Your task to perform on an android device: see sites visited before in the chrome app Image 0: 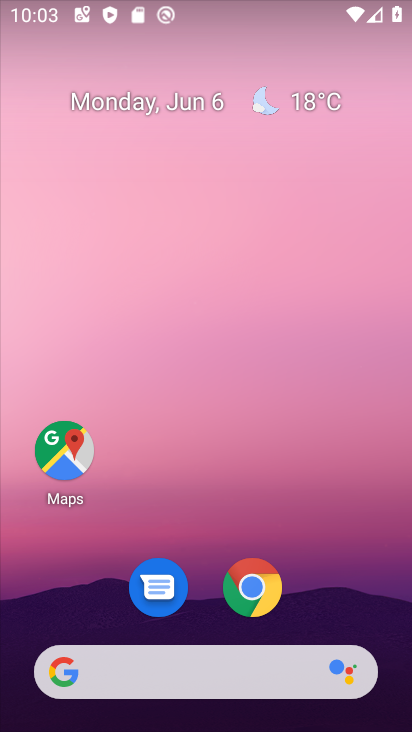
Step 0: click (252, 586)
Your task to perform on an android device: see sites visited before in the chrome app Image 1: 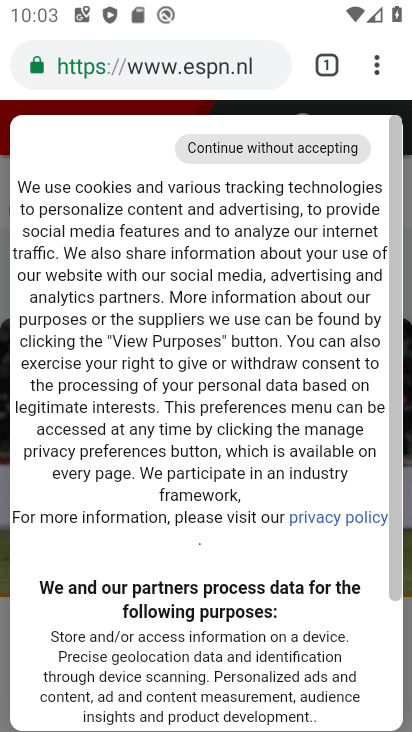
Step 1: click (378, 58)
Your task to perform on an android device: see sites visited before in the chrome app Image 2: 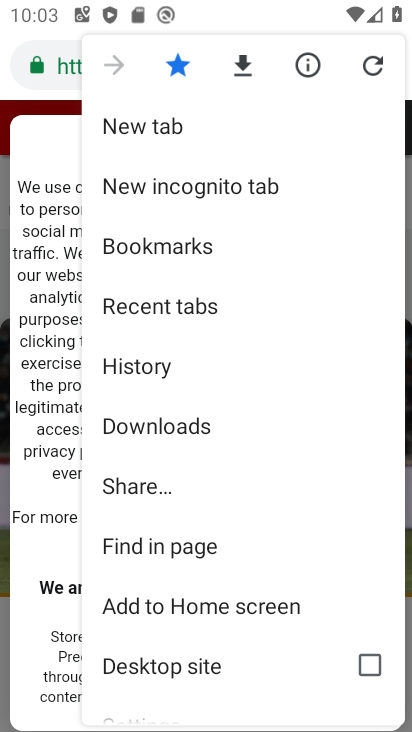
Step 2: drag from (334, 637) to (340, 137)
Your task to perform on an android device: see sites visited before in the chrome app Image 3: 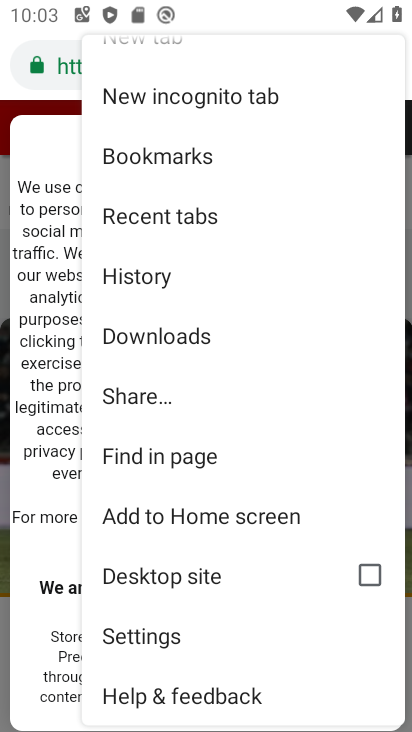
Step 3: drag from (315, 279) to (304, 681)
Your task to perform on an android device: see sites visited before in the chrome app Image 4: 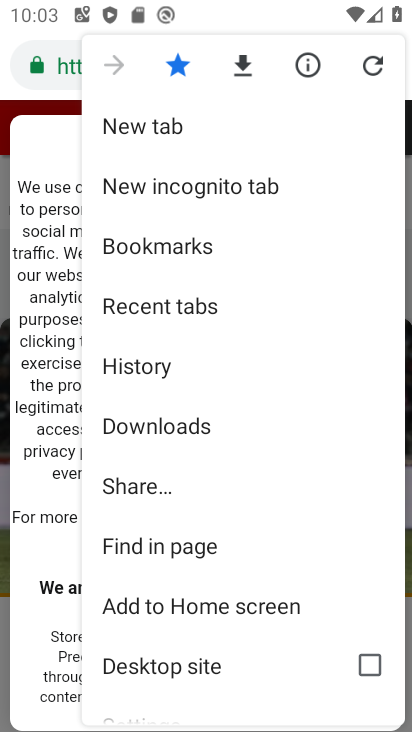
Step 4: drag from (305, 661) to (382, 254)
Your task to perform on an android device: see sites visited before in the chrome app Image 5: 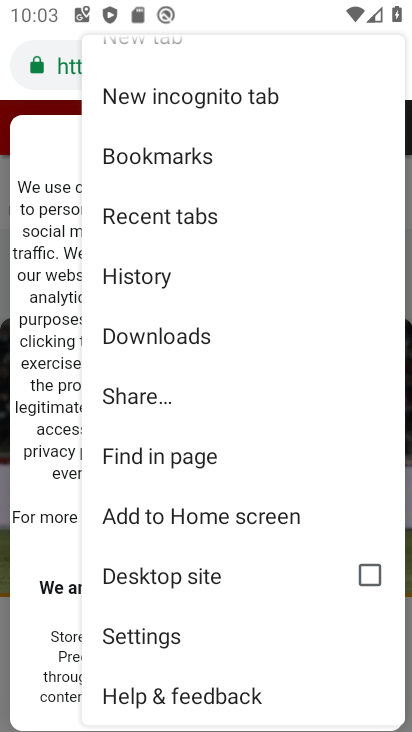
Step 5: click (158, 639)
Your task to perform on an android device: see sites visited before in the chrome app Image 6: 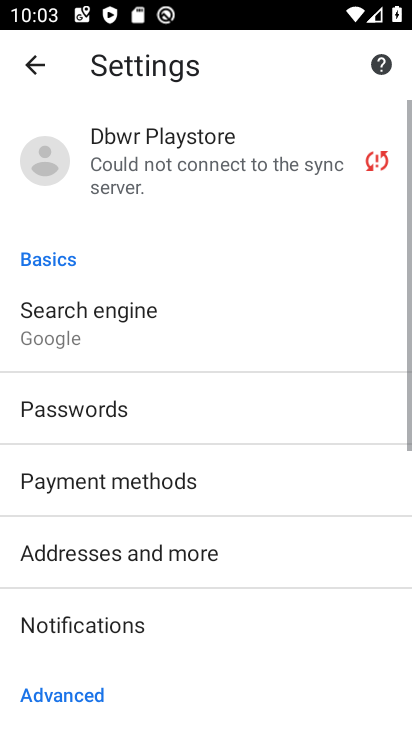
Step 6: task complete